Your task to perform on an android device: see creations saved in the google photos Image 0: 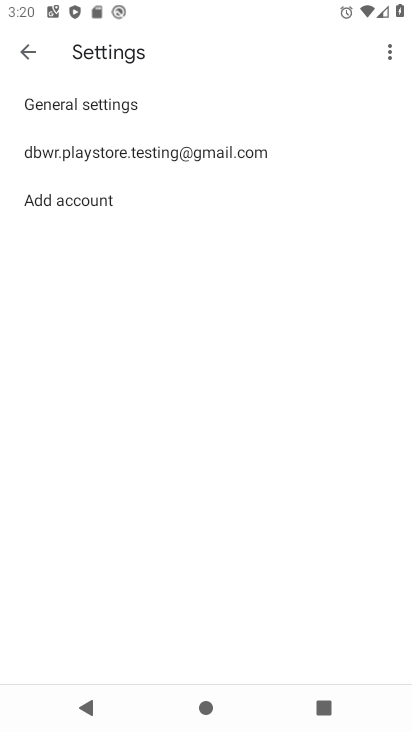
Step 0: press back button
Your task to perform on an android device: see creations saved in the google photos Image 1: 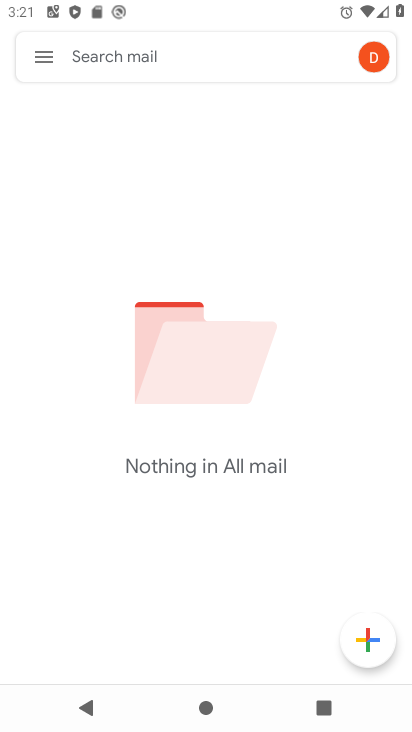
Step 1: press back button
Your task to perform on an android device: see creations saved in the google photos Image 2: 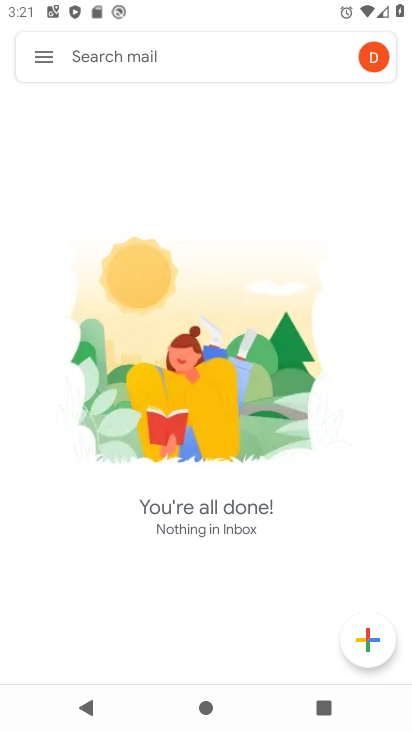
Step 2: press back button
Your task to perform on an android device: see creations saved in the google photos Image 3: 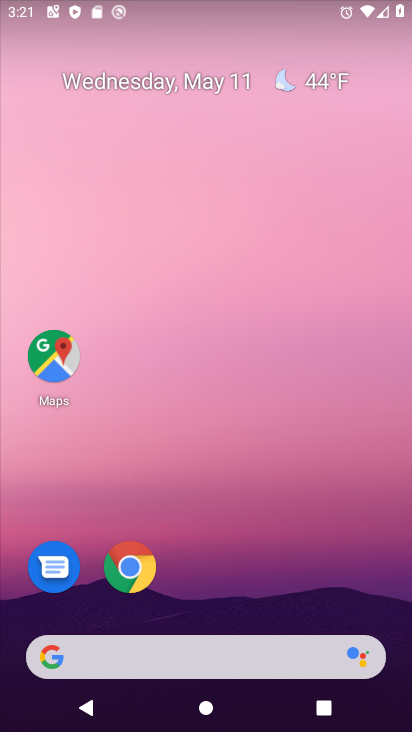
Step 3: drag from (234, 562) to (0, 226)
Your task to perform on an android device: see creations saved in the google photos Image 4: 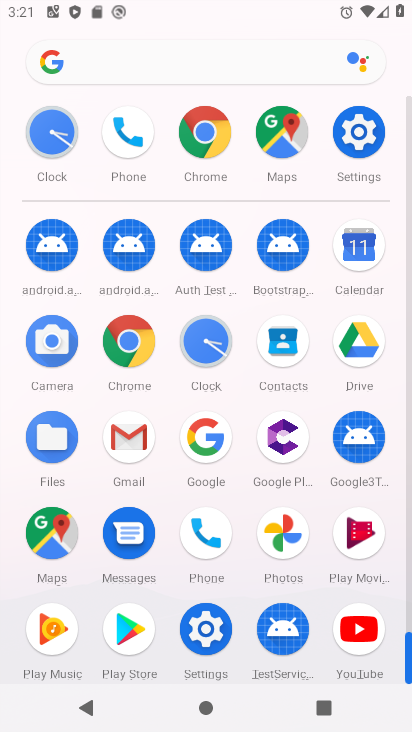
Step 4: drag from (11, 583) to (7, 306)
Your task to perform on an android device: see creations saved in the google photos Image 5: 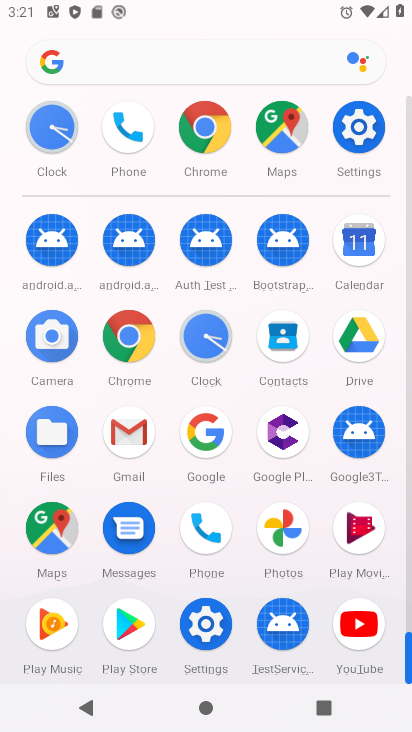
Step 5: click (284, 524)
Your task to perform on an android device: see creations saved in the google photos Image 6: 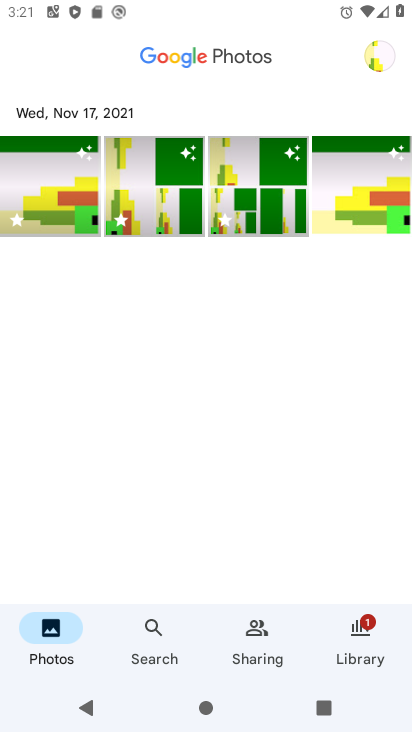
Step 6: task complete